Your task to perform on an android device: Open settings Image 0: 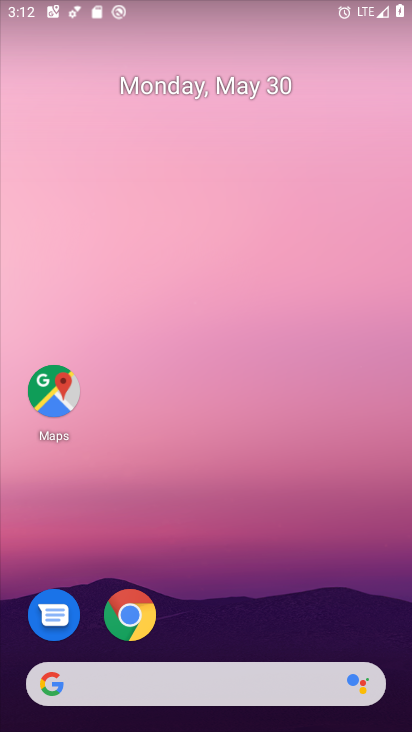
Step 0: drag from (249, 562) to (321, 5)
Your task to perform on an android device: Open settings Image 1: 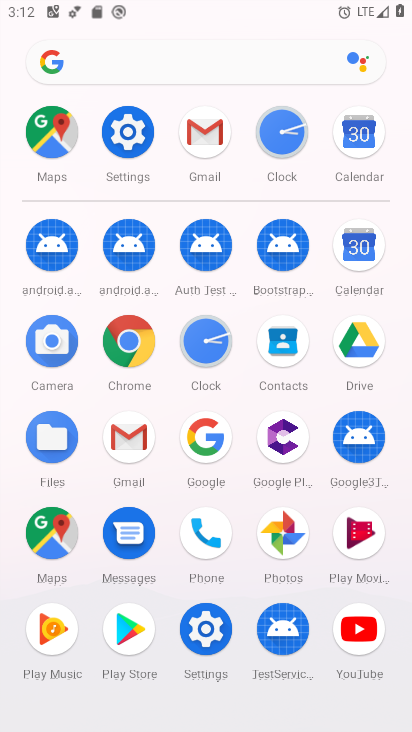
Step 1: click (134, 134)
Your task to perform on an android device: Open settings Image 2: 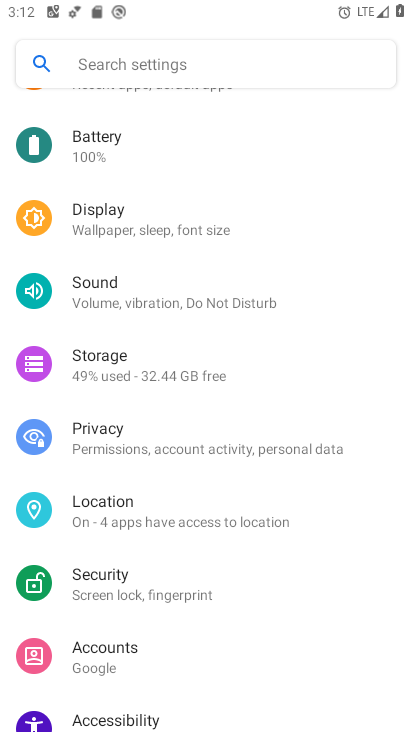
Step 2: task complete